Your task to perform on an android device: Check the weather Image 0: 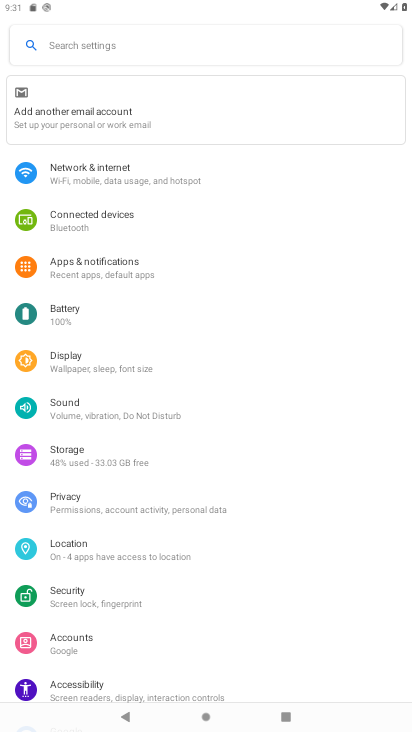
Step 0: press home button
Your task to perform on an android device: Check the weather Image 1: 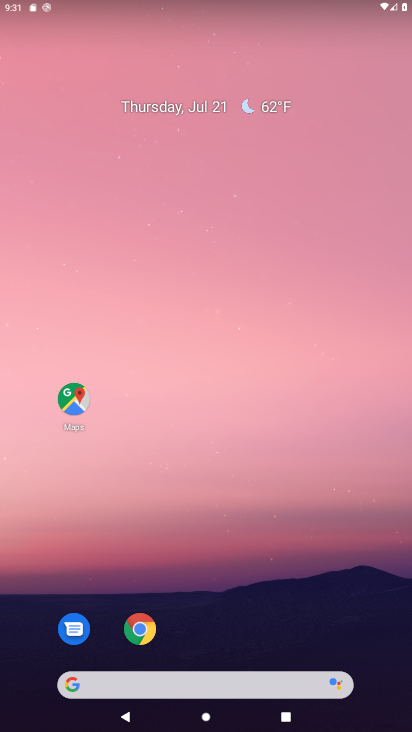
Step 1: click (141, 638)
Your task to perform on an android device: Check the weather Image 2: 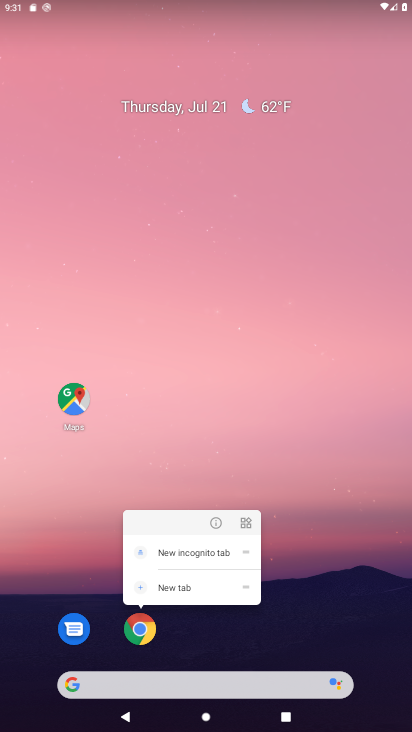
Step 2: click (134, 640)
Your task to perform on an android device: Check the weather Image 3: 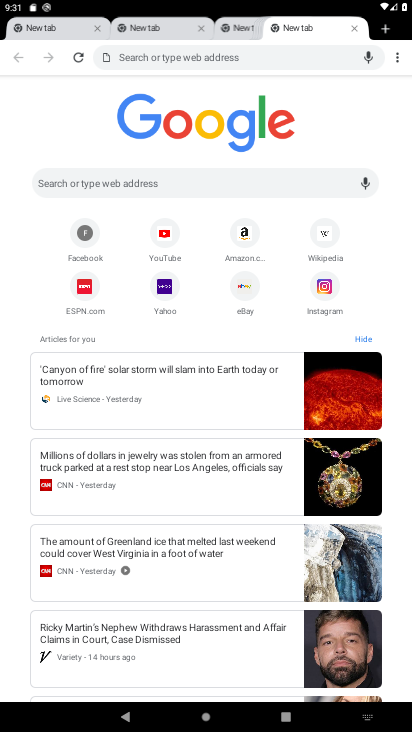
Step 3: click (227, 186)
Your task to perform on an android device: Check the weather Image 4: 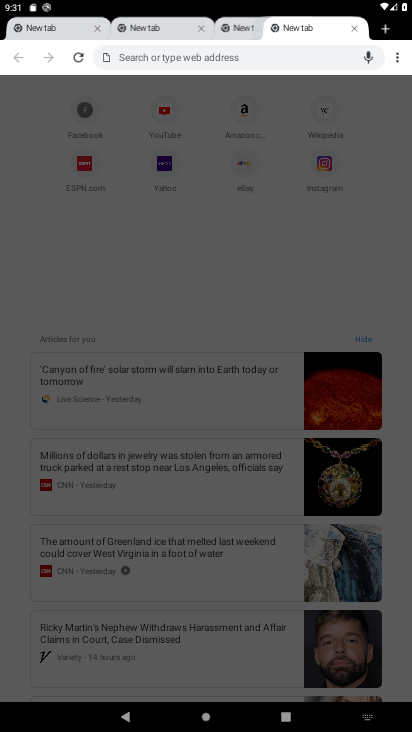
Step 4: type "Check the weather "
Your task to perform on an android device: Check the weather Image 5: 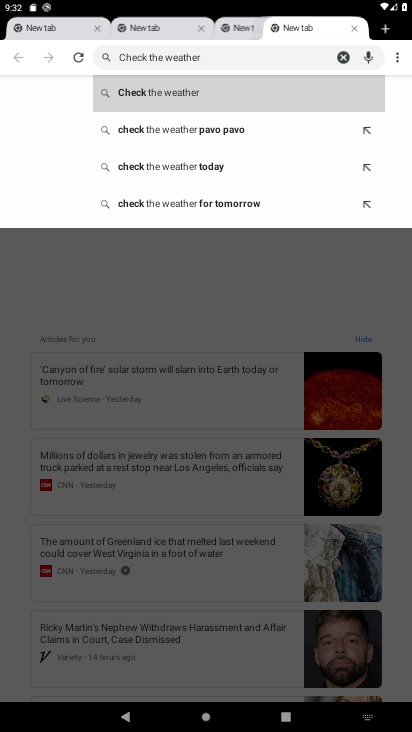
Step 5: click (206, 77)
Your task to perform on an android device: Check the weather Image 6: 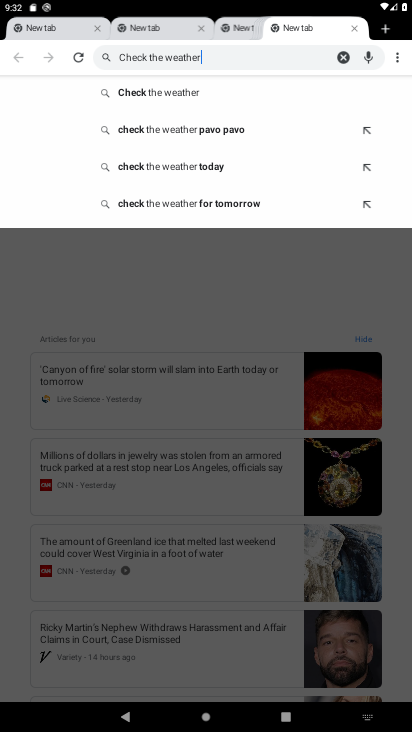
Step 6: click (178, 103)
Your task to perform on an android device: Check the weather Image 7: 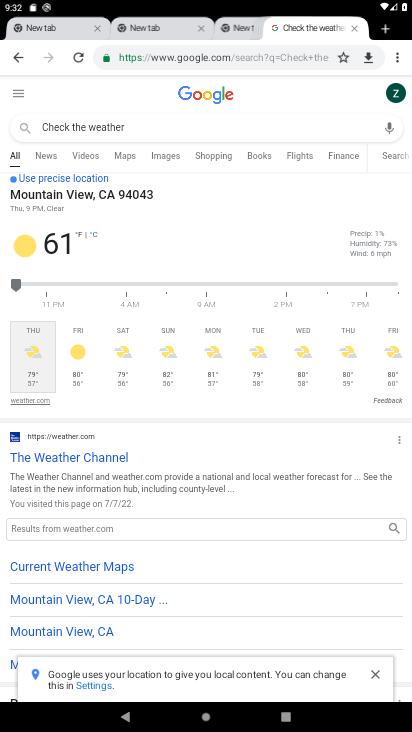
Step 7: task complete